Your task to perform on an android device: Open the phone app and click the voicemail tab. Image 0: 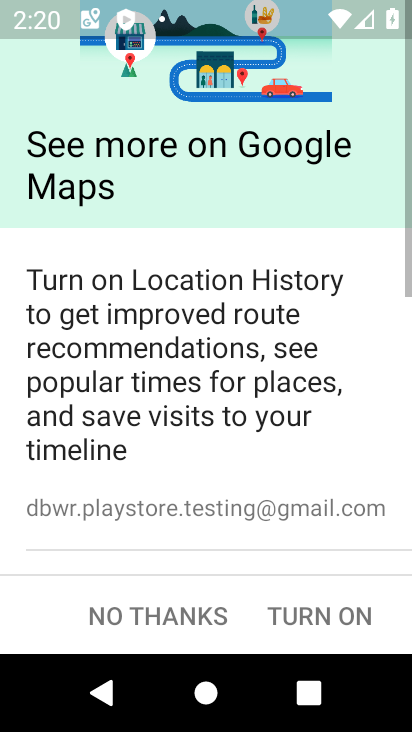
Step 0: press back button
Your task to perform on an android device: Open the phone app and click the voicemail tab. Image 1: 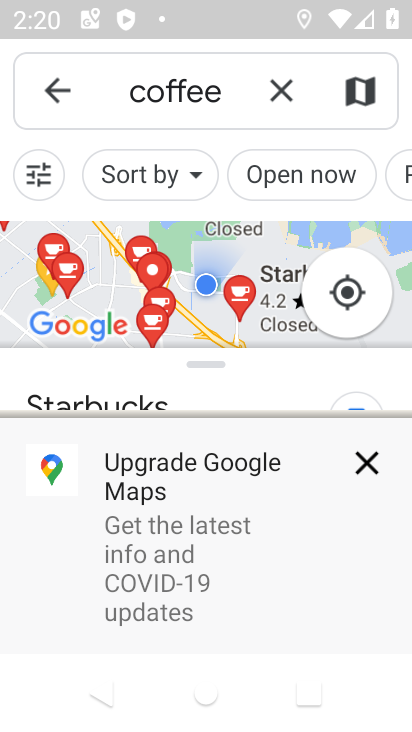
Step 1: press back button
Your task to perform on an android device: Open the phone app and click the voicemail tab. Image 2: 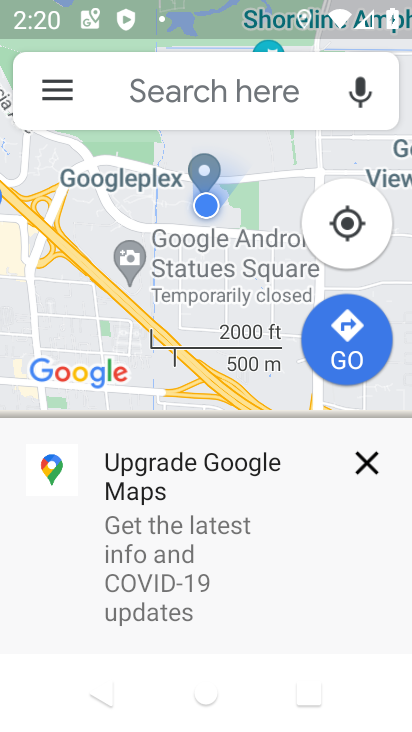
Step 2: press back button
Your task to perform on an android device: Open the phone app and click the voicemail tab. Image 3: 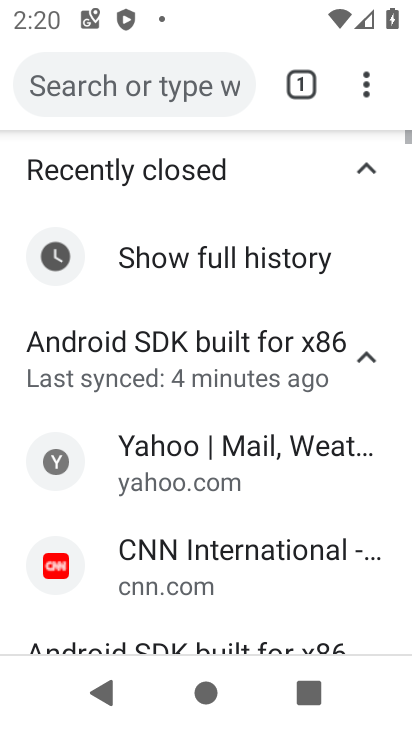
Step 3: press home button
Your task to perform on an android device: Open the phone app and click the voicemail tab. Image 4: 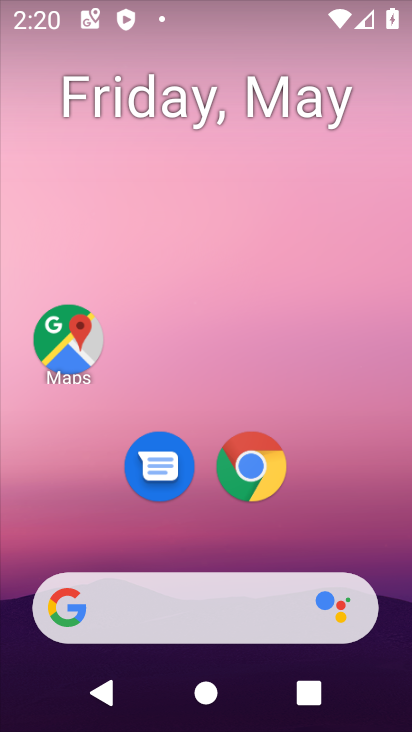
Step 4: drag from (236, 393) to (279, 144)
Your task to perform on an android device: Open the phone app and click the voicemail tab. Image 5: 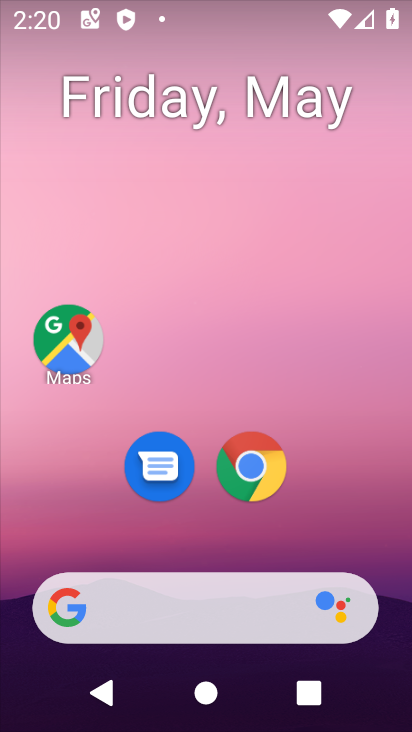
Step 5: drag from (172, 539) to (237, 72)
Your task to perform on an android device: Open the phone app and click the voicemail tab. Image 6: 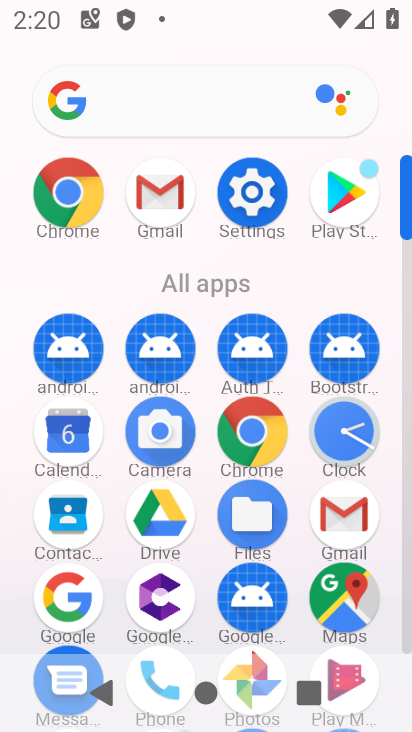
Step 6: drag from (180, 583) to (246, 175)
Your task to perform on an android device: Open the phone app and click the voicemail tab. Image 7: 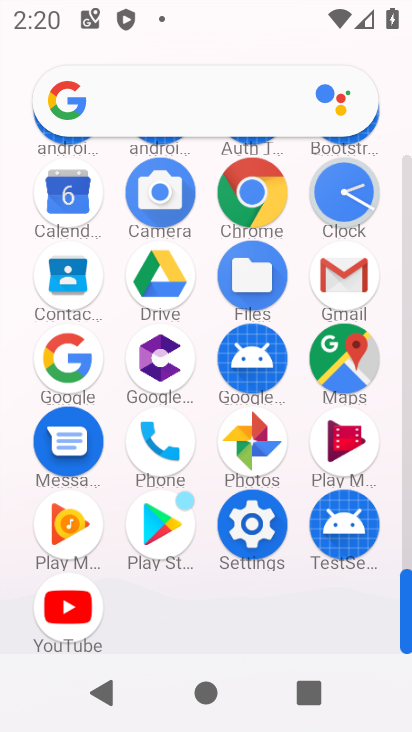
Step 7: click (165, 446)
Your task to perform on an android device: Open the phone app and click the voicemail tab. Image 8: 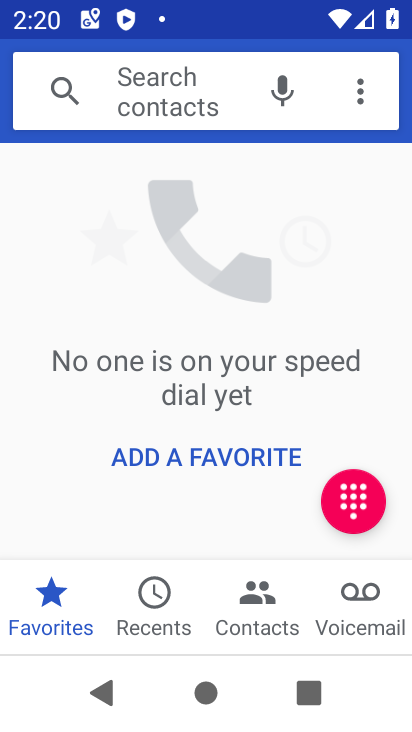
Step 8: click (350, 615)
Your task to perform on an android device: Open the phone app and click the voicemail tab. Image 9: 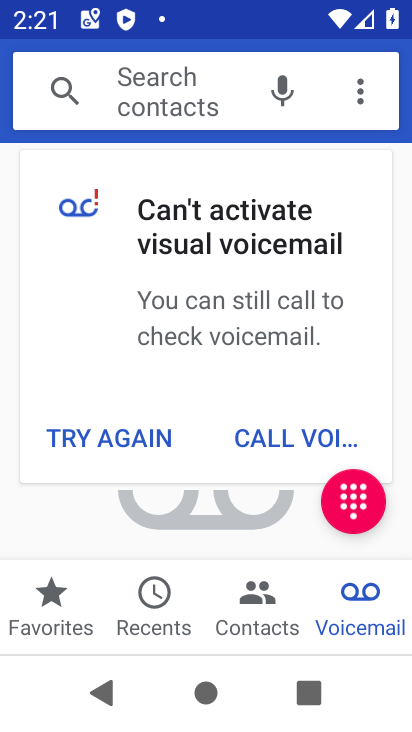
Step 9: click (377, 615)
Your task to perform on an android device: Open the phone app and click the voicemail tab. Image 10: 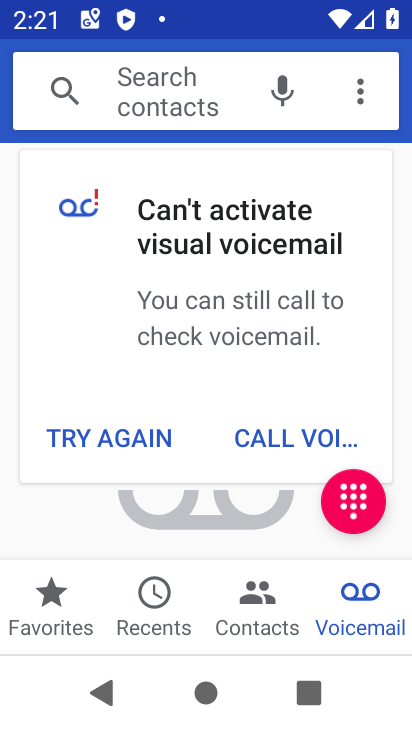
Step 10: task complete